Your task to perform on an android device: turn off notifications in google photos Image 0: 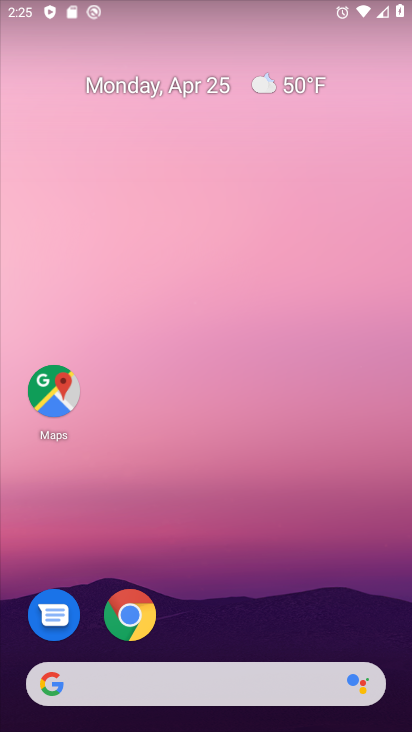
Step 0: drag from (259, 583) to (156, 38)
Your task to perform on an android device: turn off notifications in google photos Image 1: 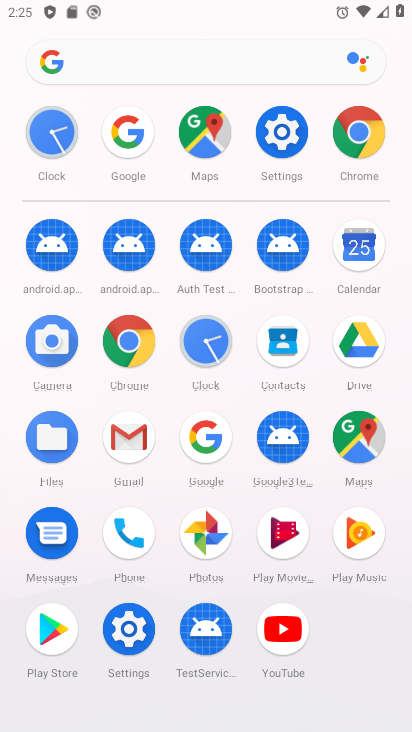
Step 1: click (206, 535)
Your task to perform on an android device: turn off notifications in google photos Image 2: 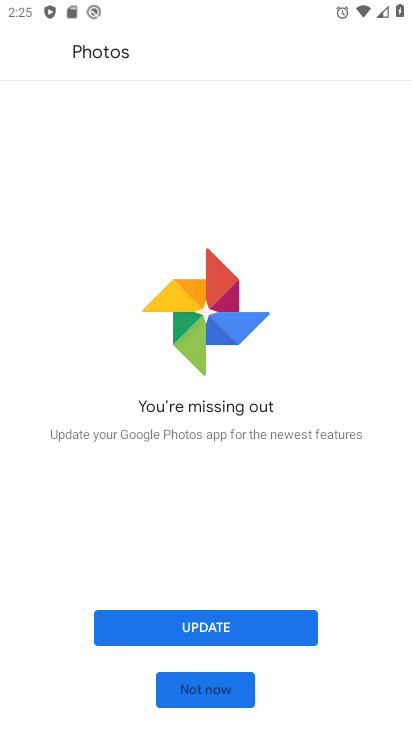
Step 2: click (225, 622)
Your task to perform on an android device: turn off notifications in google photos Image 3: 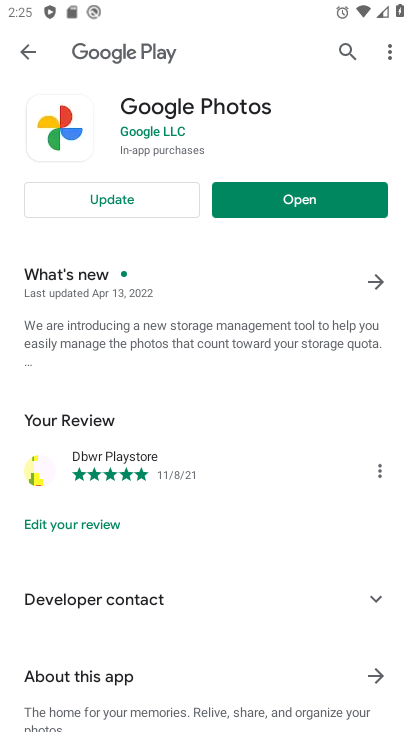
Step 3: click (142, 203)
Your task to perform on an android device: turn off notifications in google photos Image 4: 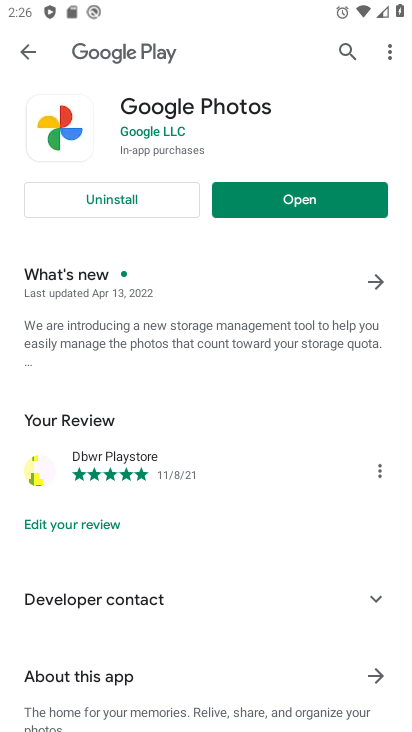
Step 4: click (338, 215)
Your task to perform on an android device: turn off notifications in google photos Image 5: 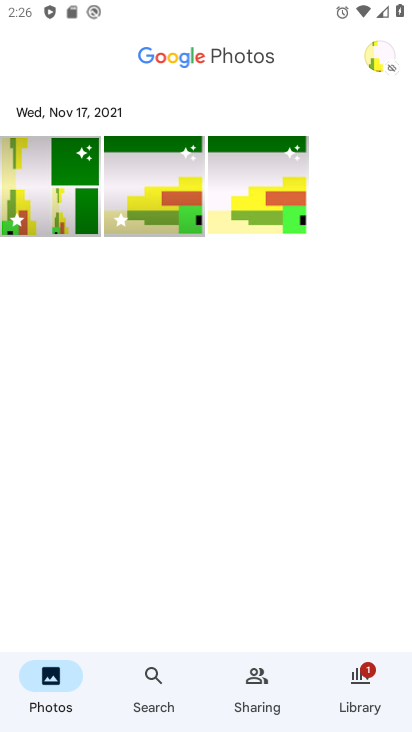
Step 5: click (383, 57)
Your task to perform on an android device: turn off notifications in google photos Image 6: 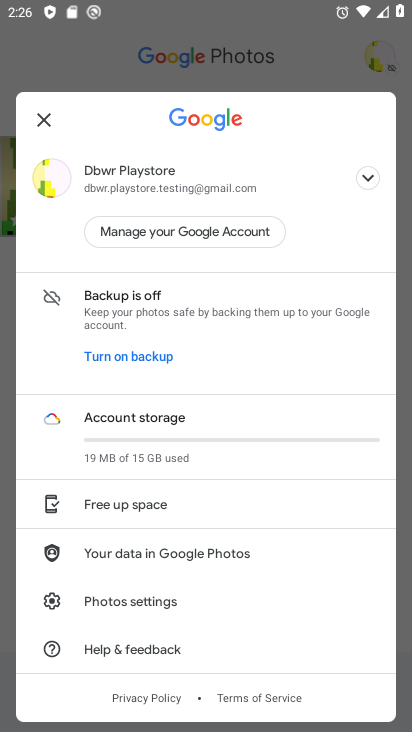
Step 6: click (134, 601)
Your task to perform on an android device: turn off notifications in google photos Image 7: 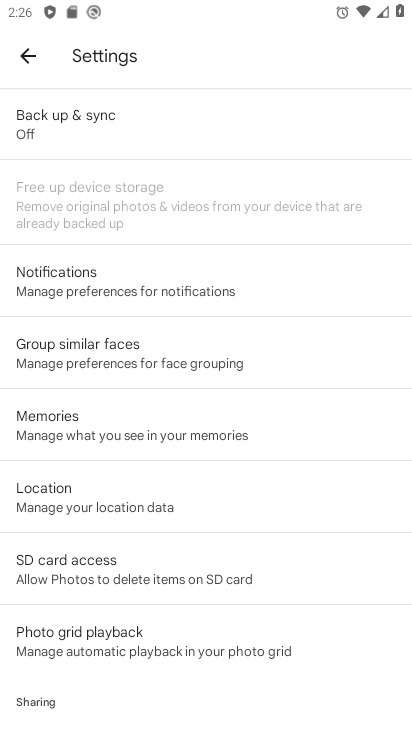
Step 7: click (68, 288)
Your task to perform on an android device: turn off notifications in google photos Image 8: 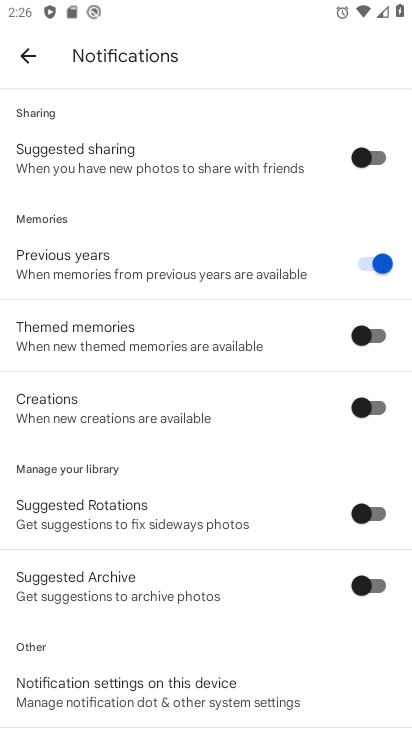
Step 8: drag from (153, 518) to (166, 451)
Your task to perform on an android device: turn off notifications in google photos Image 9: 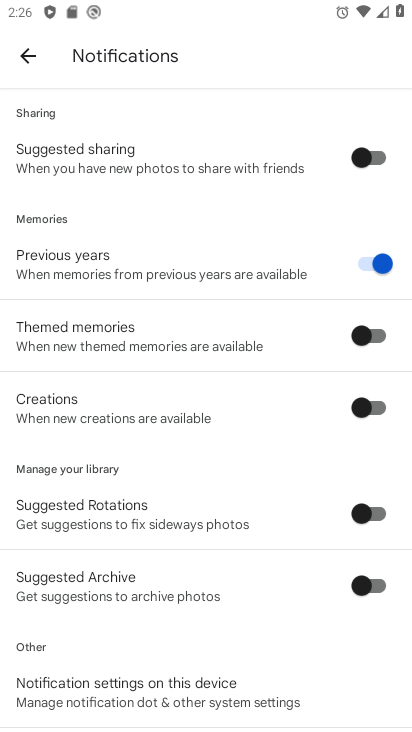
Step 9: click (198, 678)
Your task to perform on an android device: turn off notifications in google photos Image 10: 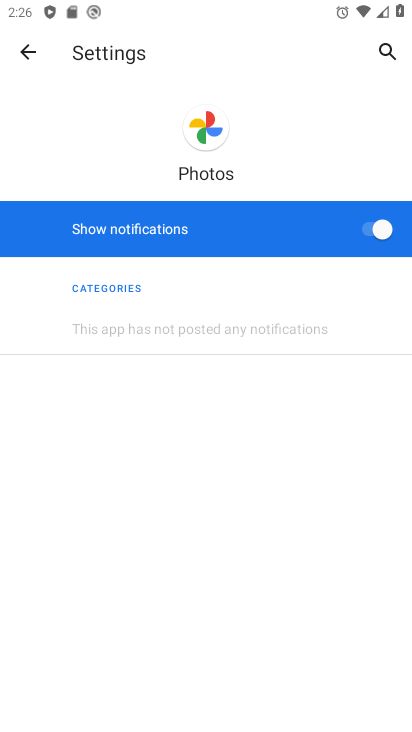
Step 10: click (376, 225)
Your task to perform on an android device: turn off notifications in google photos Image 11: 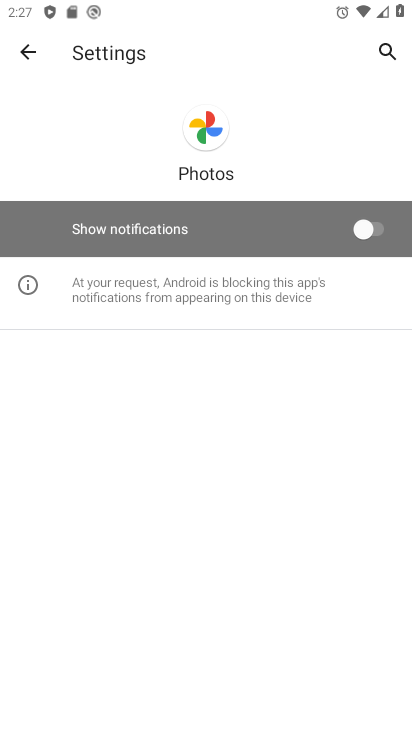
Step 11: task complete